Your task to perform on an android device: Go to Amazon Image 0: 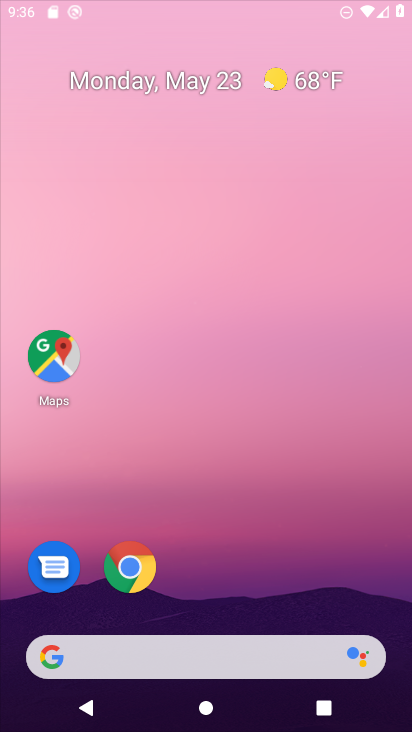
Step 0: click (392, 499)
Your task to perform on an android device: Go to Amazon Image 1: 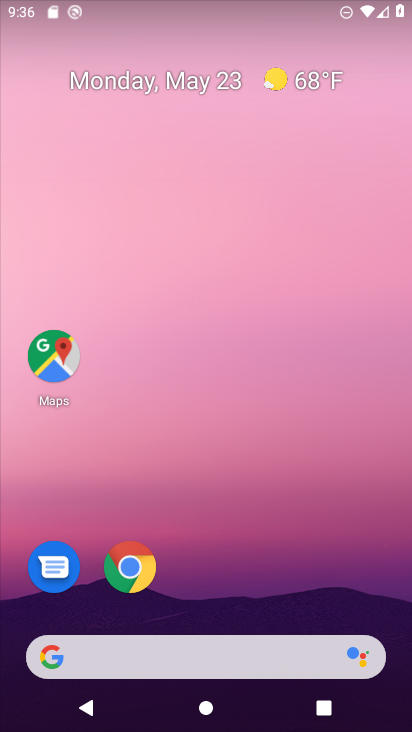
Step 1: drag from (179, 579) to (385, 265)
Your task to perform on an android device: Go to Amazon Image 2: 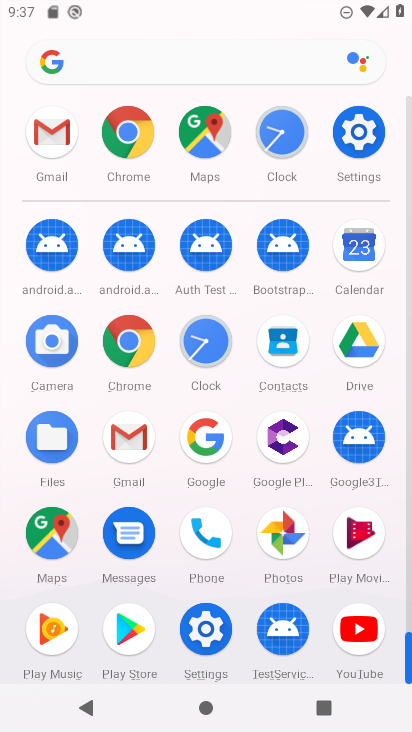
Step 2: click (127, 336)
Your task to perform on an android device: Go to Amazon Image 3: 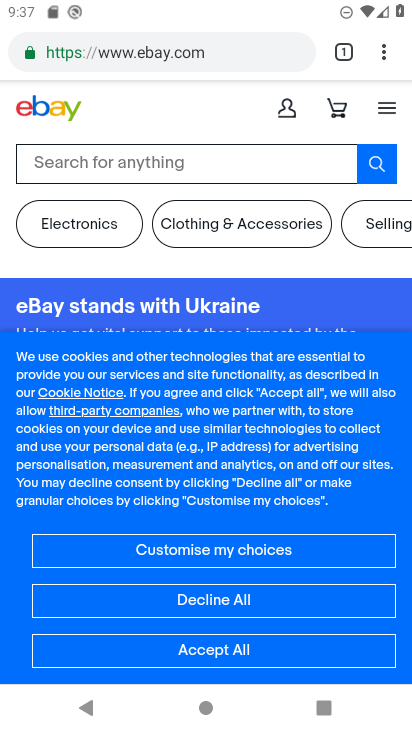
Step 3: click (344, 45)
Your task to perform on an android device: Go to Amazon Image 4: 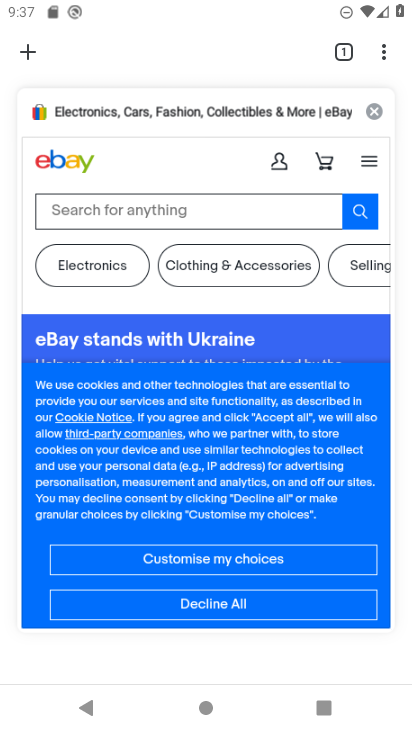
Step 4: click (370, 104)
Your task to perform on an android device: Go to Amazon Image 5: 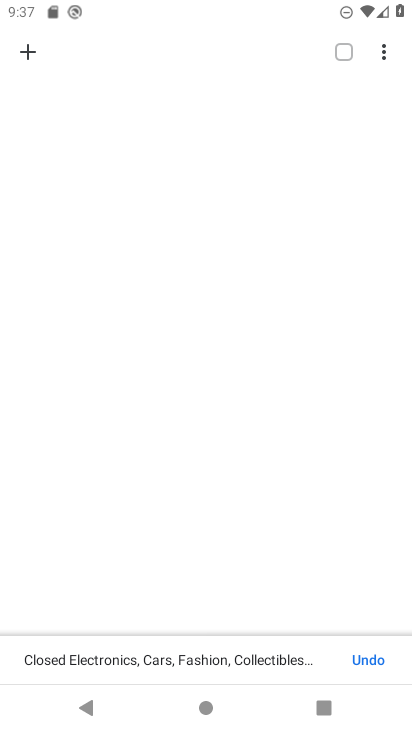
Step 5: click (23, 44)
Your task to perform on an android device: Go to Amazon Image 6: 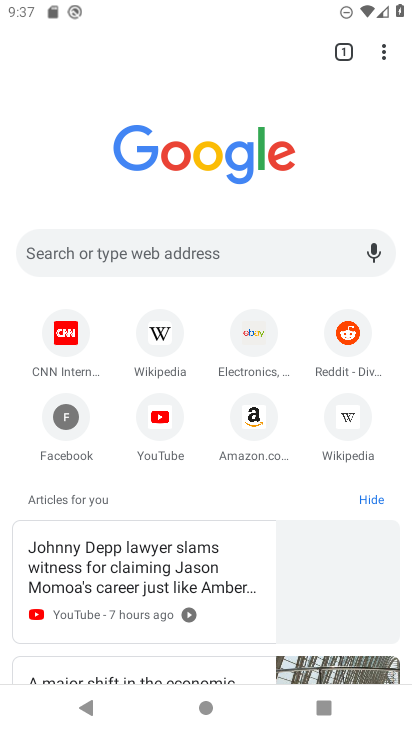
Step 6: click (258, 406)
Your task to perform on an android device: Go to Amazon Image 7: 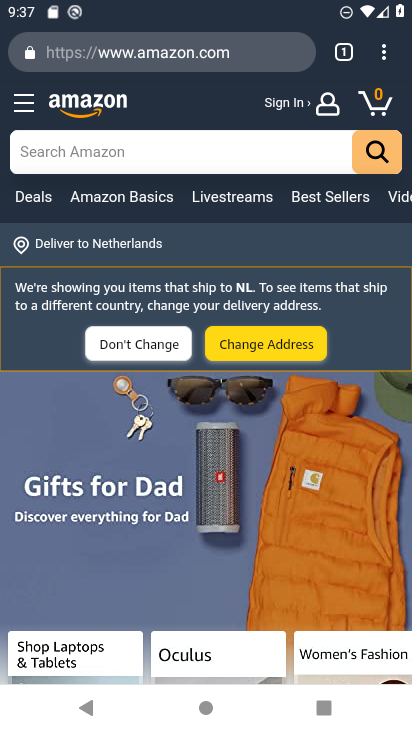
Step 7: drag from (254, 596) to (337, 195)
Your task to perform on an android device: Go to Amazon Image 8: 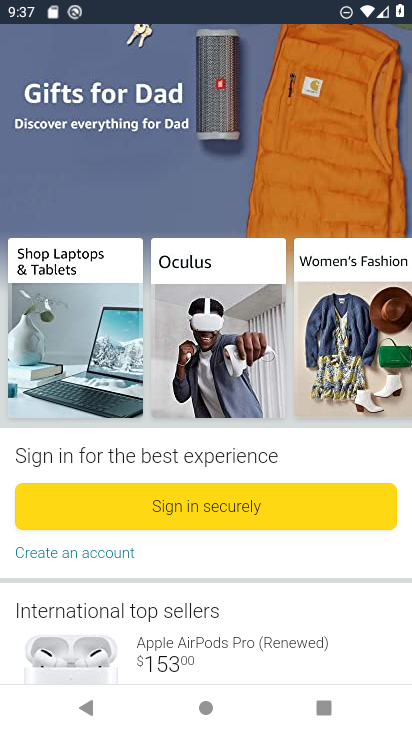
Step 8: drag from (336, 147) to (295, 728)
Your task to perform on an android device: Go to Amazon Image 9: 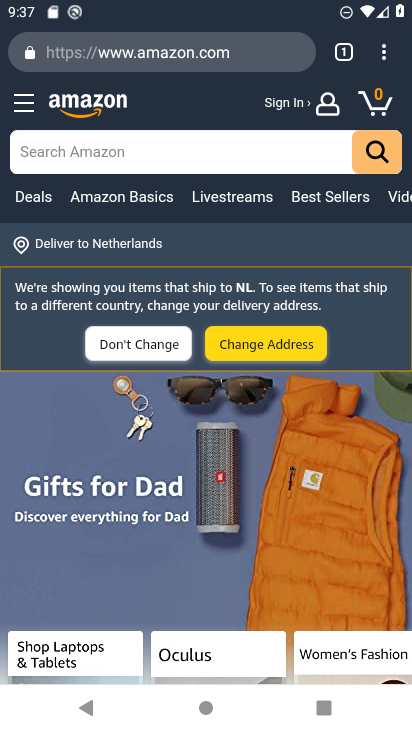
Step 9: click (380, 52)
Your task to perform on an android device: Go to Amazon Image 10: 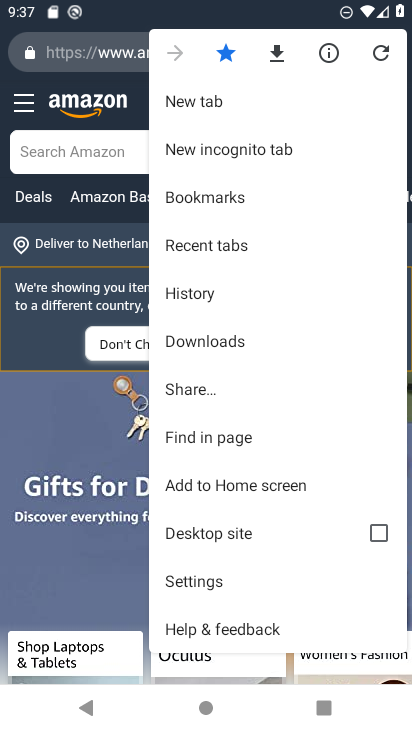
Step 10: task complete